Your task to perform on an android device: Show me popular games on the Play Store Image 0: 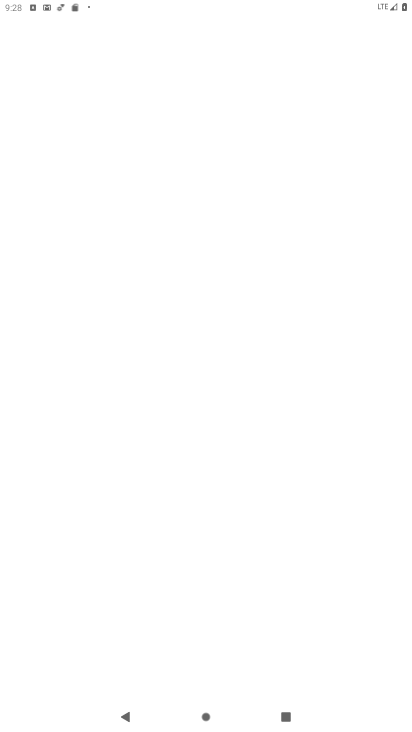
Step 0: press home button
Your task to perform on an android device: Show me popular games on the Play Store Image 1: 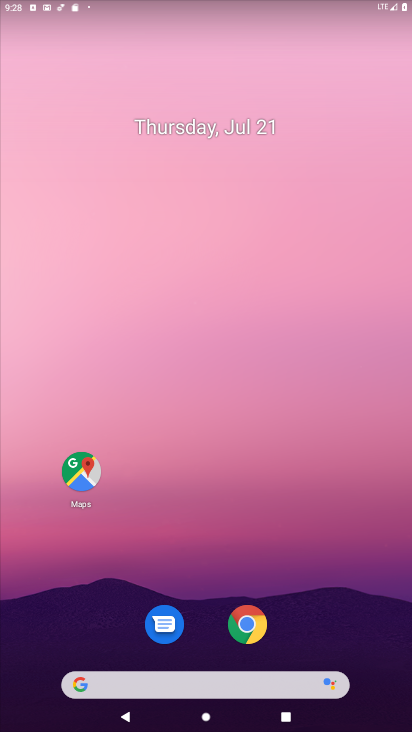
Step 1: drag from (78, 652) to (264, 397)
Your task to perform on an android device: Show me popular games on the Play Store Image 2: 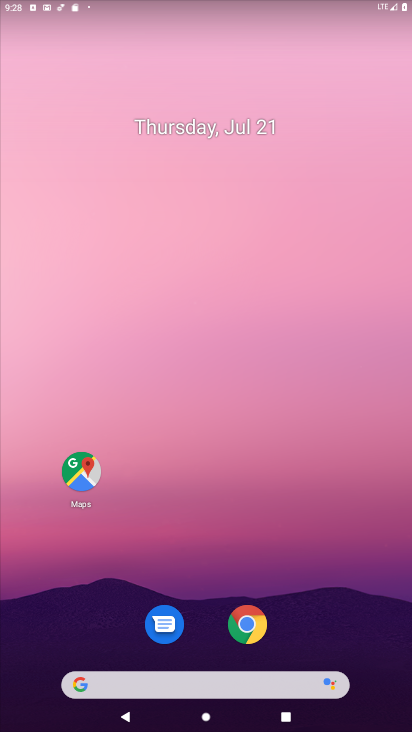
Step 2: drag from (54, 638) to (296, 210)
Your task to perform on an android device: Show me popular games on the Play Store Image 3: 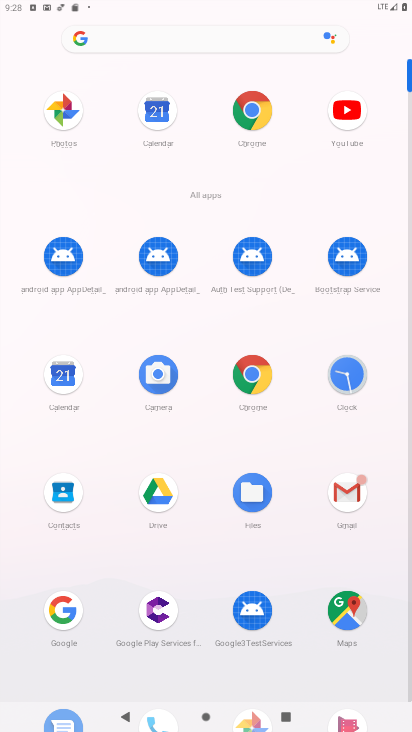
Step 3: drag from (223, 621) to (391, 211)
Your task to perform on an android device: Show me popular games on the Play Store Image 4: 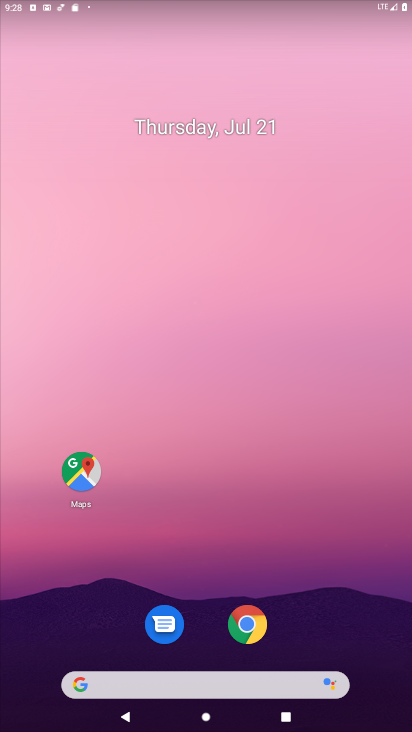
Step 4: drag from (30, 707) to (291, 238)
Your task to perform on an android device: Show me popular games on the Play Store Image 5: 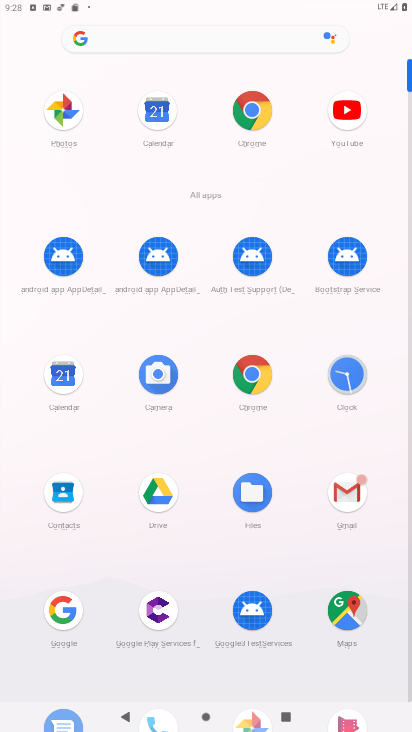
Step 5: drag from (41, 651) to (262, 218)
Your task to perform on an android device: Show me popular games on the Play Store Image 6: 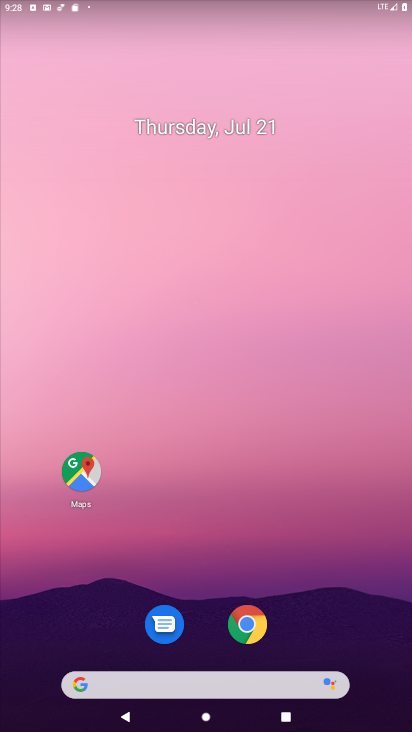
Step 6: drag from (2, 723) to (249, 223)
Your task to perform on an android device: Show me popular games on the Play Store Image 7: 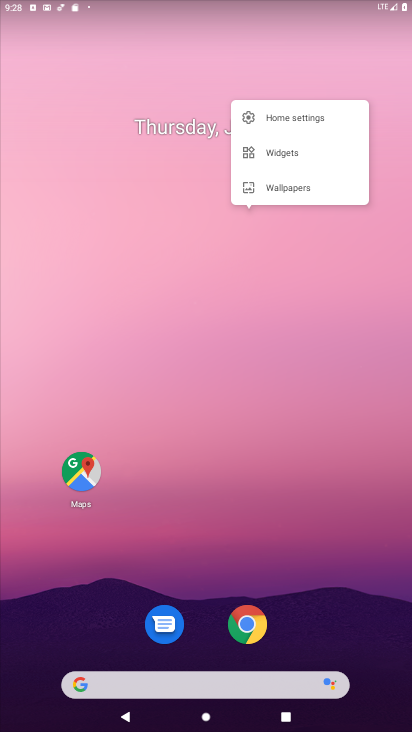
Step 7: click (129, 428)
Your task to perform on an android device: Show me popular games on the Play Store Image 8: 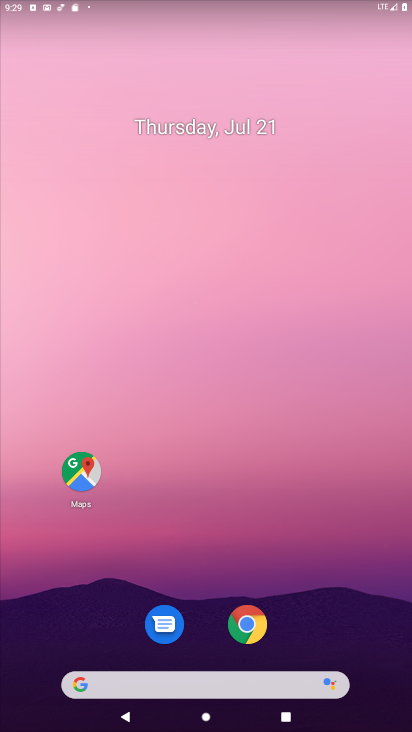
Step 8: drag from (169, 612) to (376, 237)
Your task to perform on an android device: Show me popular games on the Play Store Image 9: 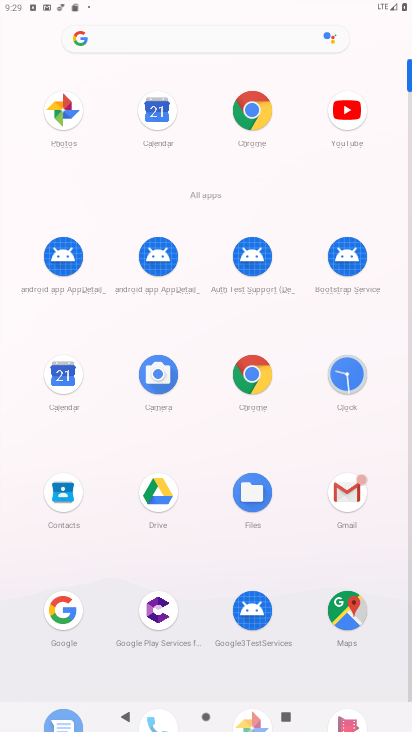
Step 9: drag from (141, 673) to (273, 313)
Your task to perform on an android device: Show me popular games on the Play Store Image 10: 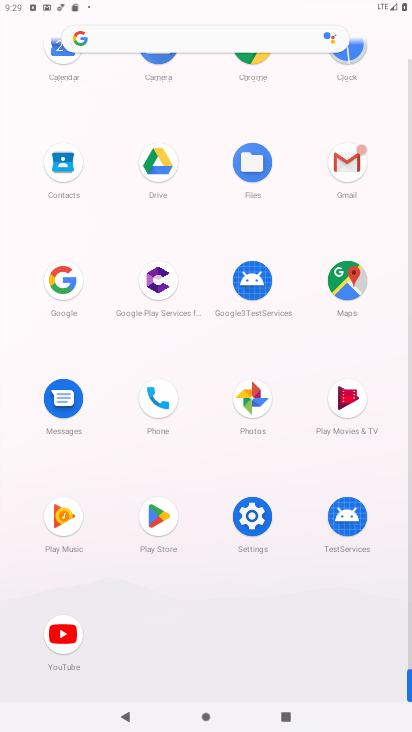
Step 10: click (177, 534)
Your task to perform on an android device: Show me popular games on the Play Store Image 11: 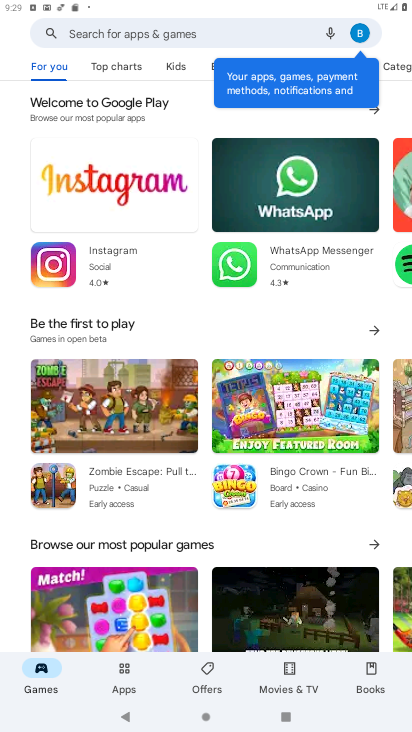
Step 11: task complete